Your task to perform on an android device: Go to Android settings Image 0: 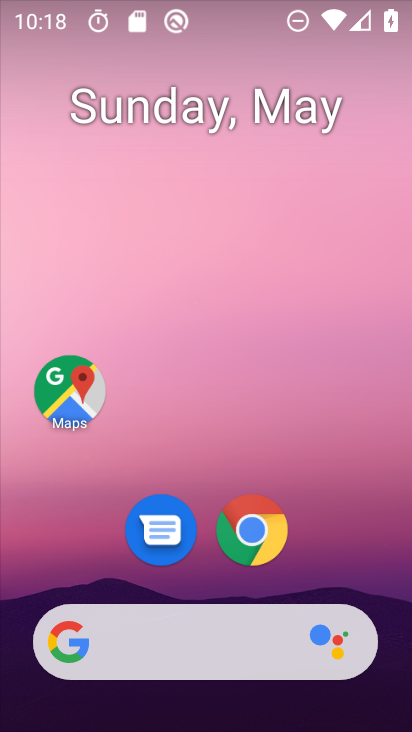
Step 0: drag from (273, 585) to (184, 70)
Your task to perform on an android device: Go to Android settings Image 1: 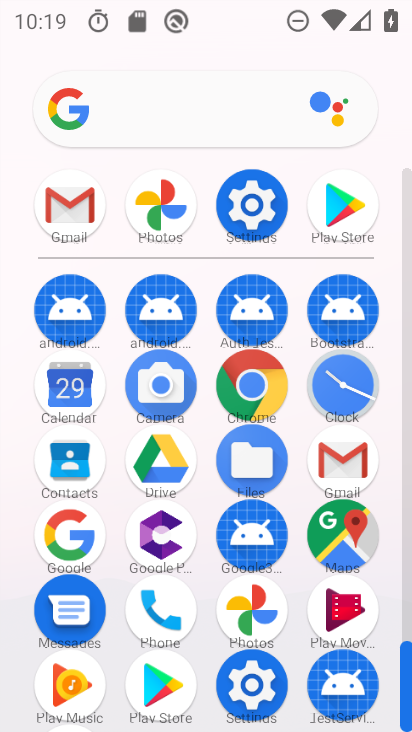
Step 1: click (248, 209)
Your task to perform on an android device: Go to Android settings Image 2: 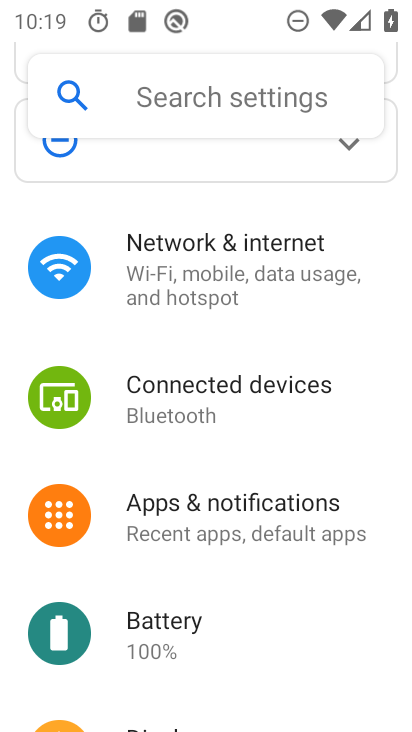
Step 2: click (184, 100)
Your task to perform on an android device: Go to Android settings Image 3: 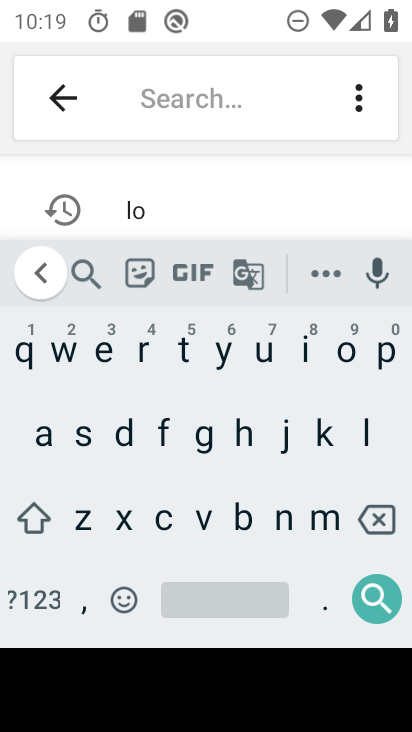
Step 3: click (40, 441)
Your task to perform on an android device: Go to Android settings Image 4: 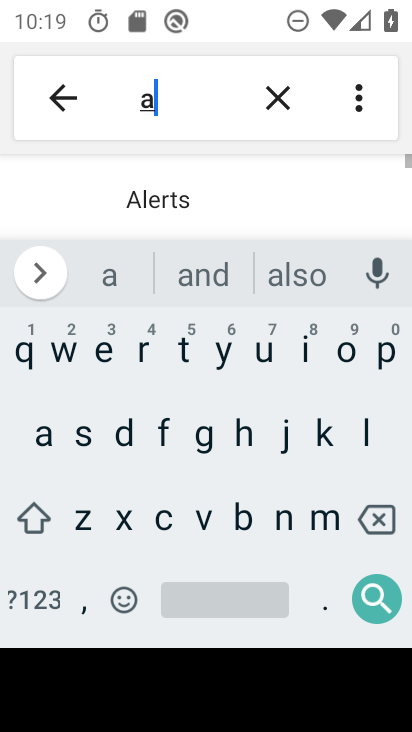
Step 4: click (279, 531)
Your task to perform on an android device: Go to Android settings Image 5: 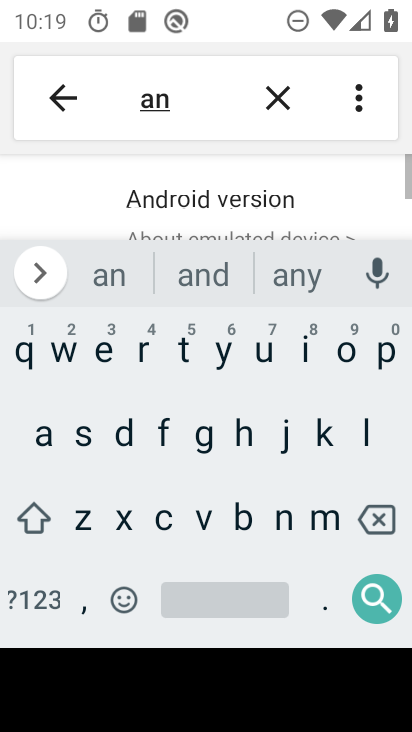
Step 5: click (176, 201)
Your task to perform on an android device: Go to Android settings Image 6: 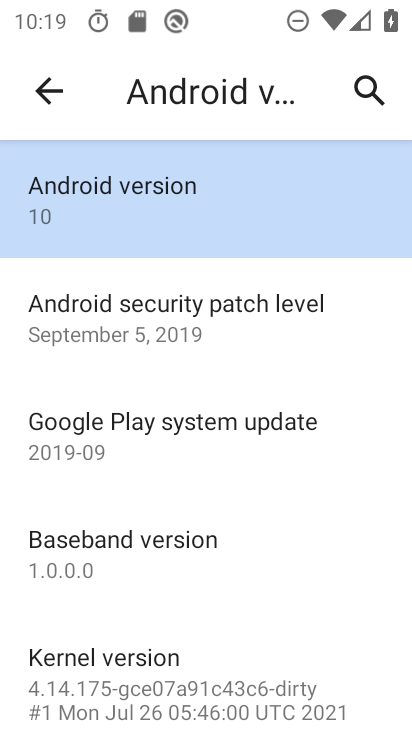
Step 6: click (236, 220)
Your task to perform on an android device: Go to Android settings Image 7: 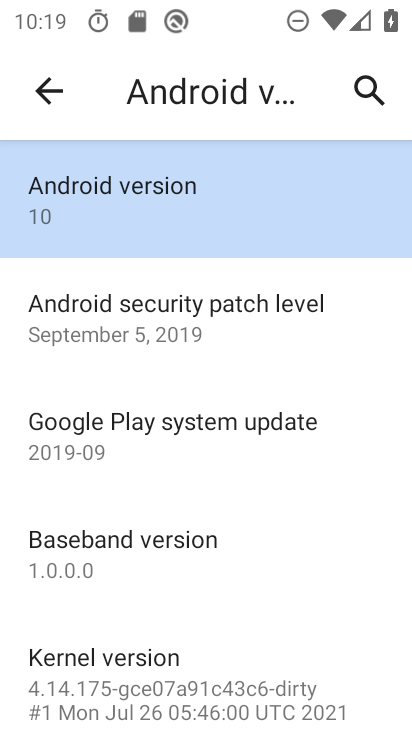
Step 7: task complete